Your task to perform on an android device: open app "Adobe Acrobat Reader: Edit PDF" (install if not already installed) Image 0: 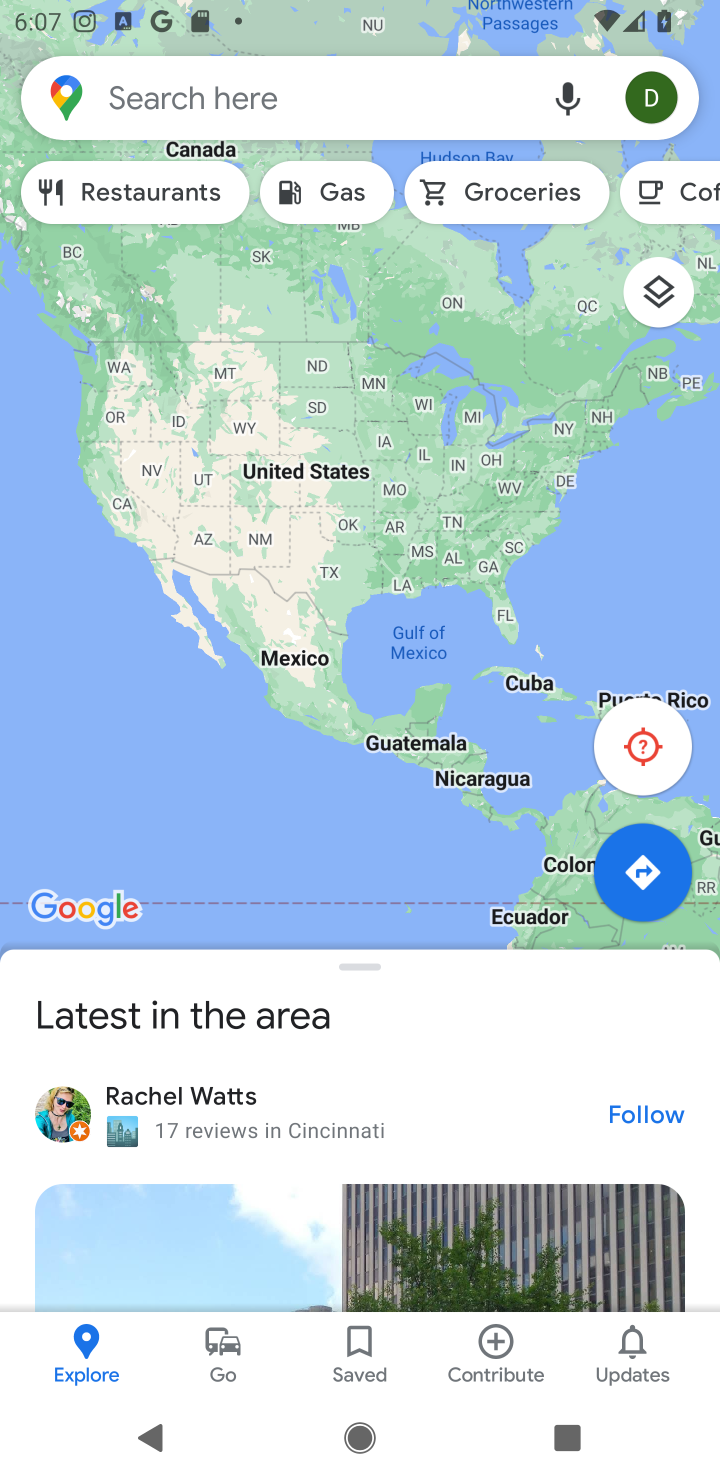
Step 0: press home button
Your task to perform on an android device: open app "Adobe Acrobat Reader: Edit PDF" (install if not already installed) Image 1: 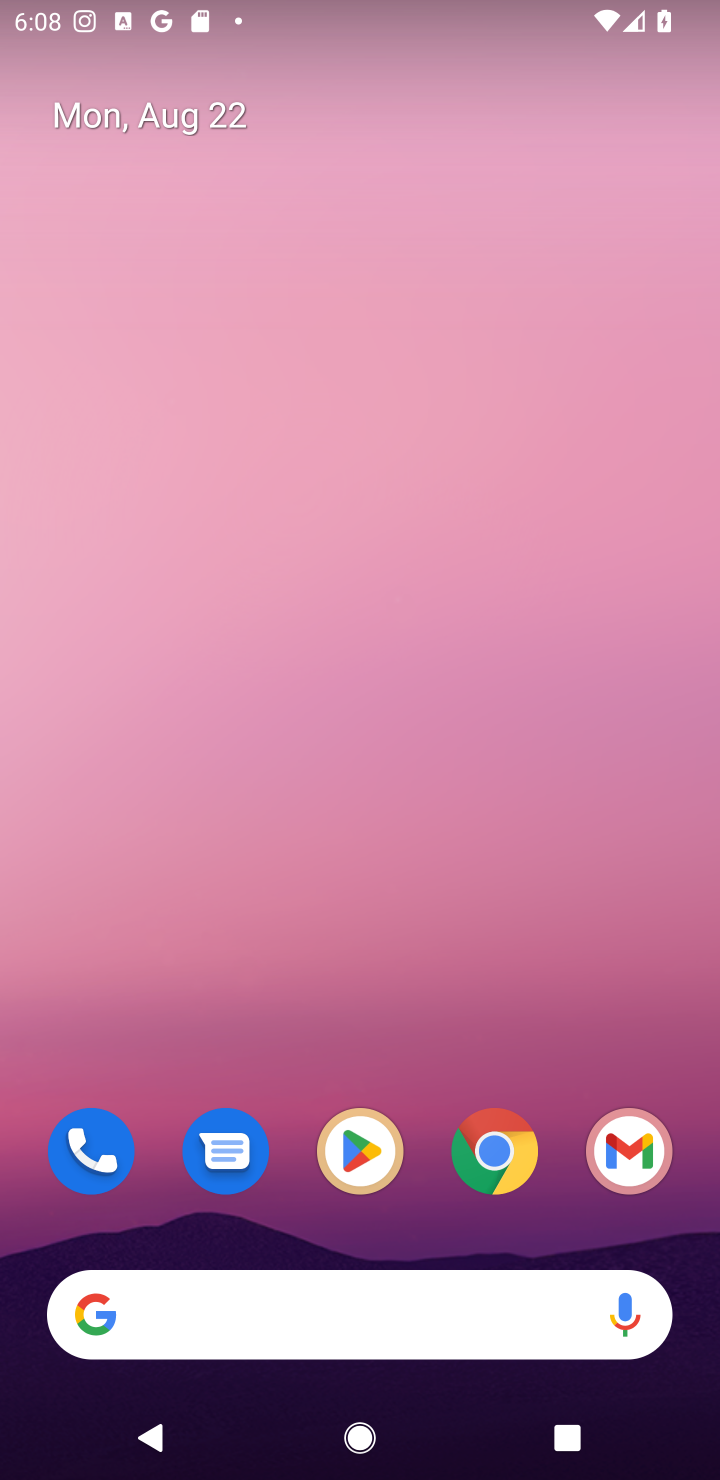
Step 1: click (365, 1143)
Your task to perform on an android device: open app "Adobe Acrobat Reader: Edit PDF" (install if not already installed) Image 2: 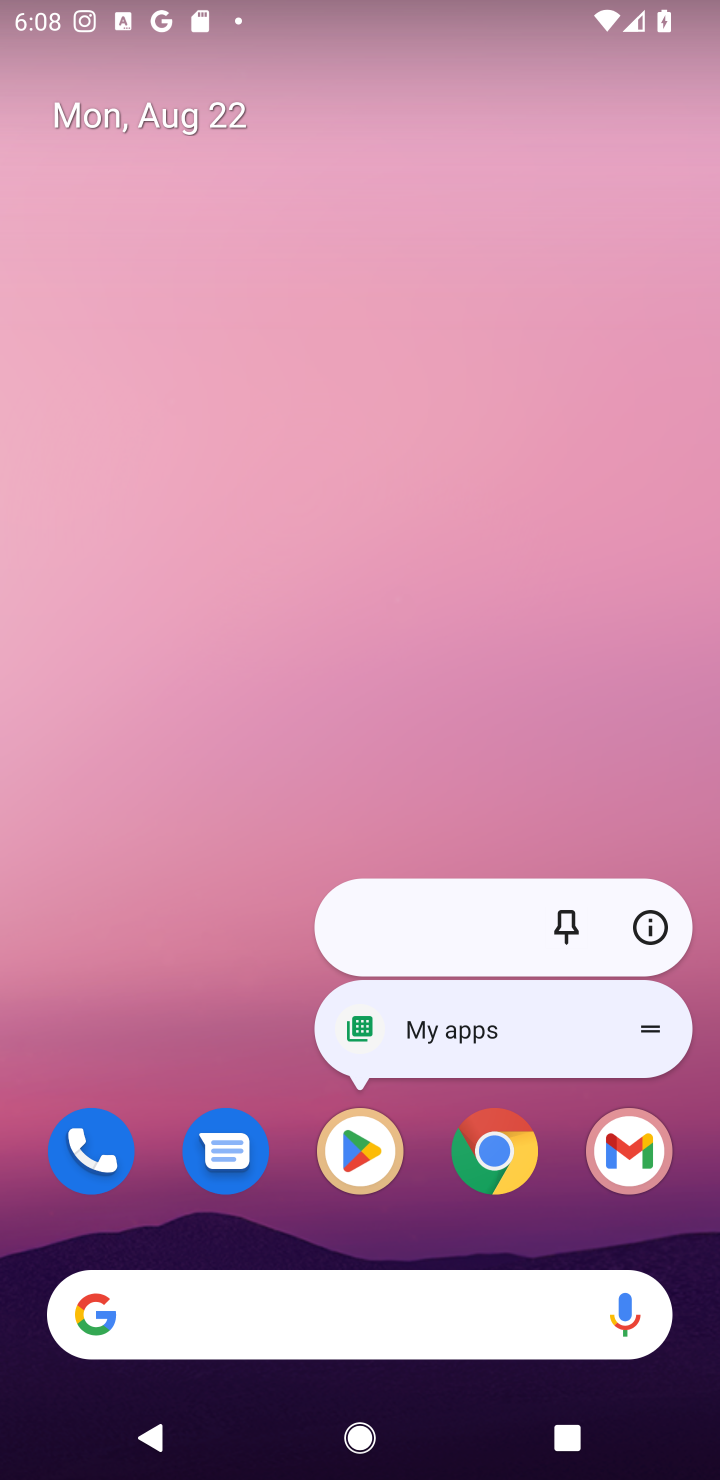
Step 2: click (365, 1149)
Your task to perform on an android device: open app "Adobe Acrobat Reader: Edit PDF" (install if not already installed) Image 3: 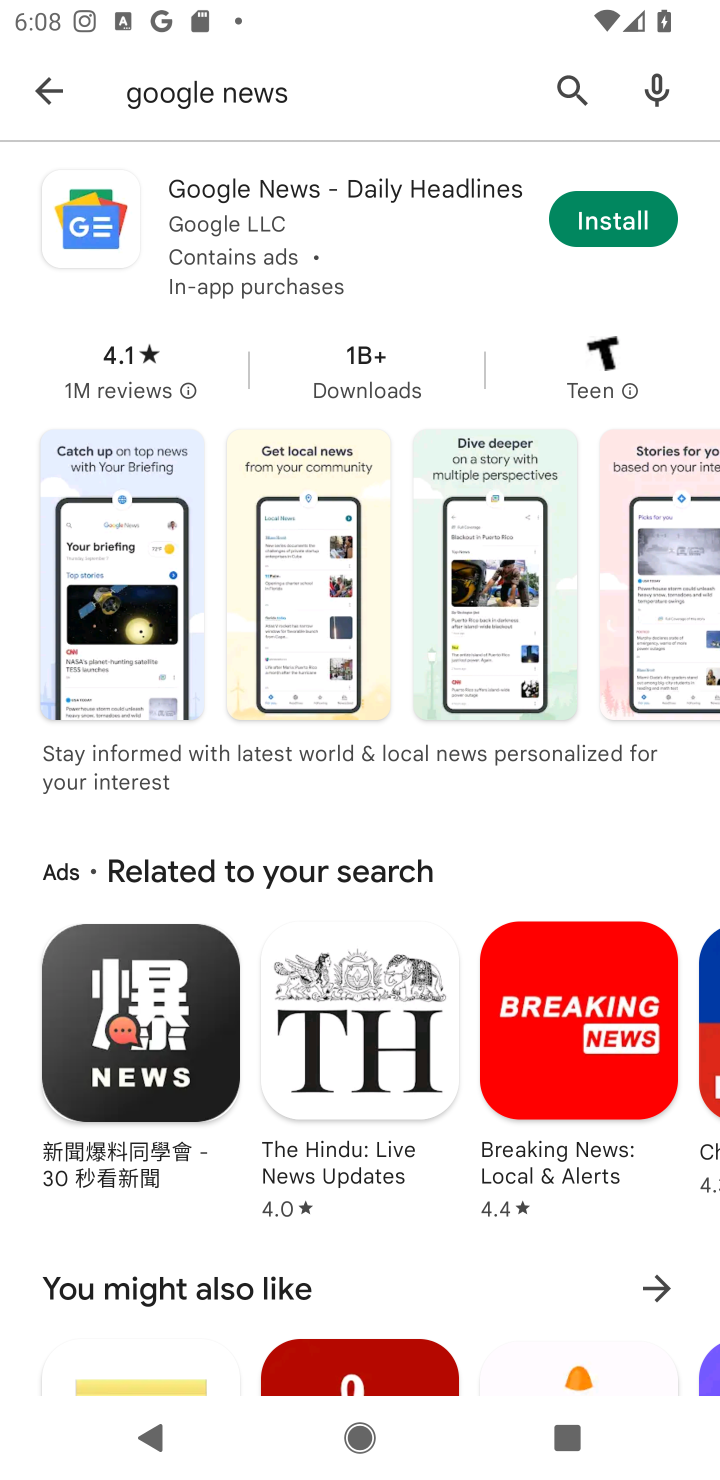
Step 3: click (560, 89)
Your task to perform on an android device: open app "Adobe Acrobat Reader: Edit PDF" (install if not already installed) Image 4: 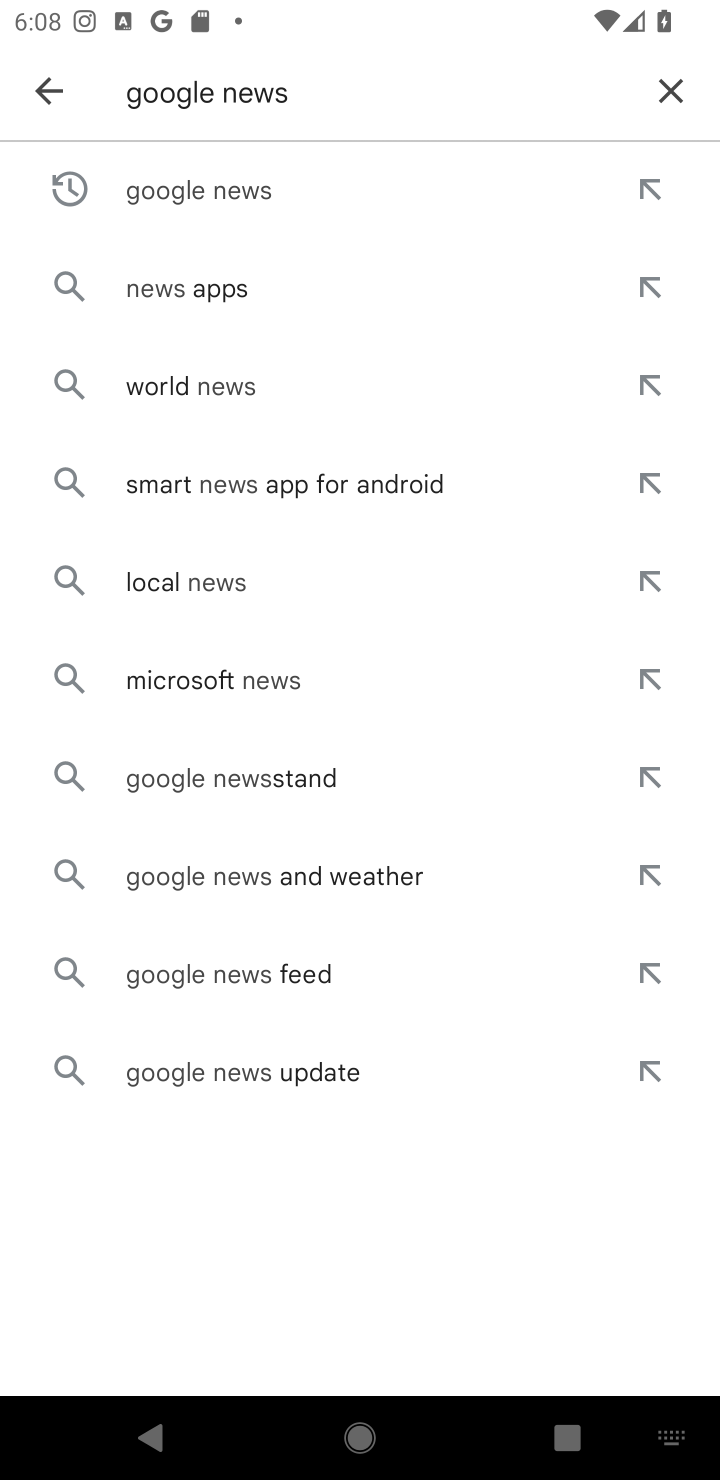
Step 4: click (668, 83)
Your task to perform on an android device: open app "Adobe Acrobat Reader: Edit PDF" (install if not already installed) Image 5: 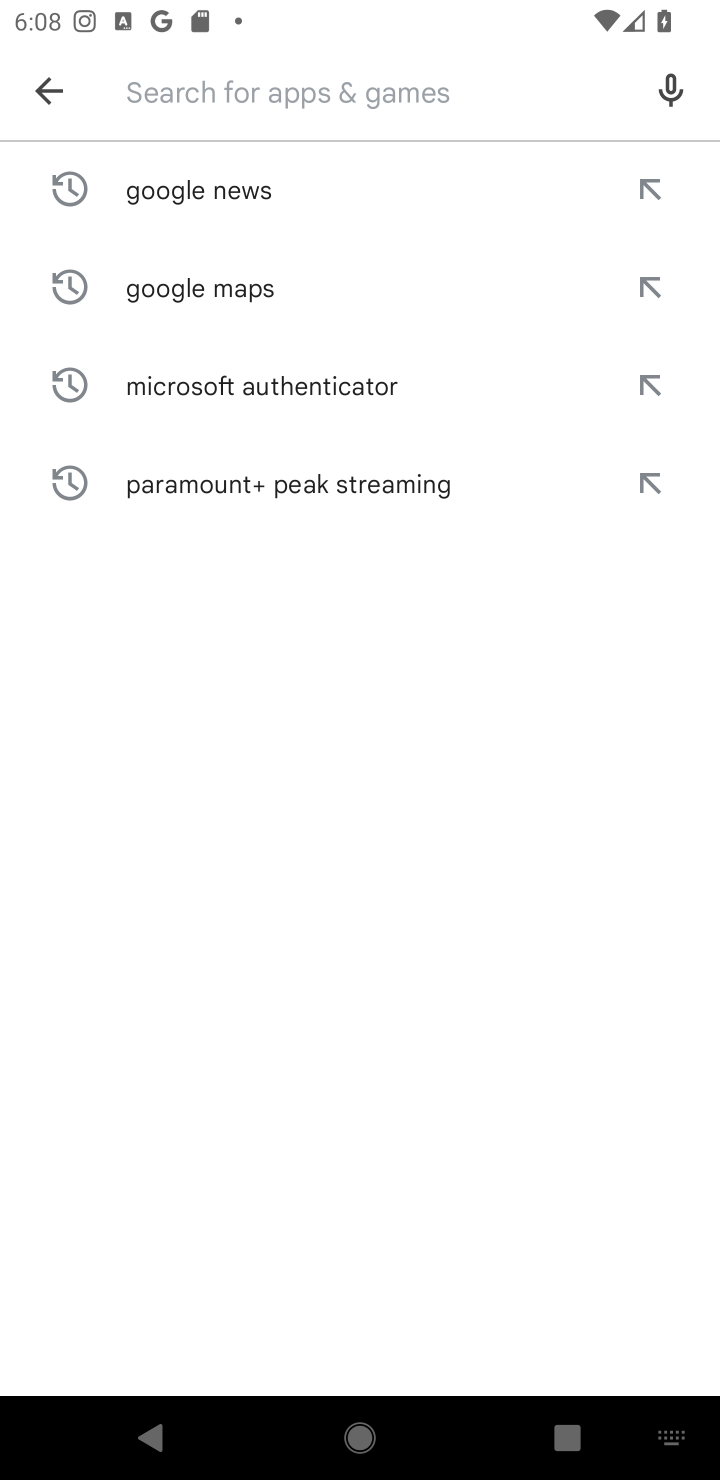
Step 5: type "Adobe Acrobat Reader: Edit PDF"
Your task to perform on an android device: open app "Adobe Acrobat Reader: Edit PDF" (install if not already installed) Image 6: 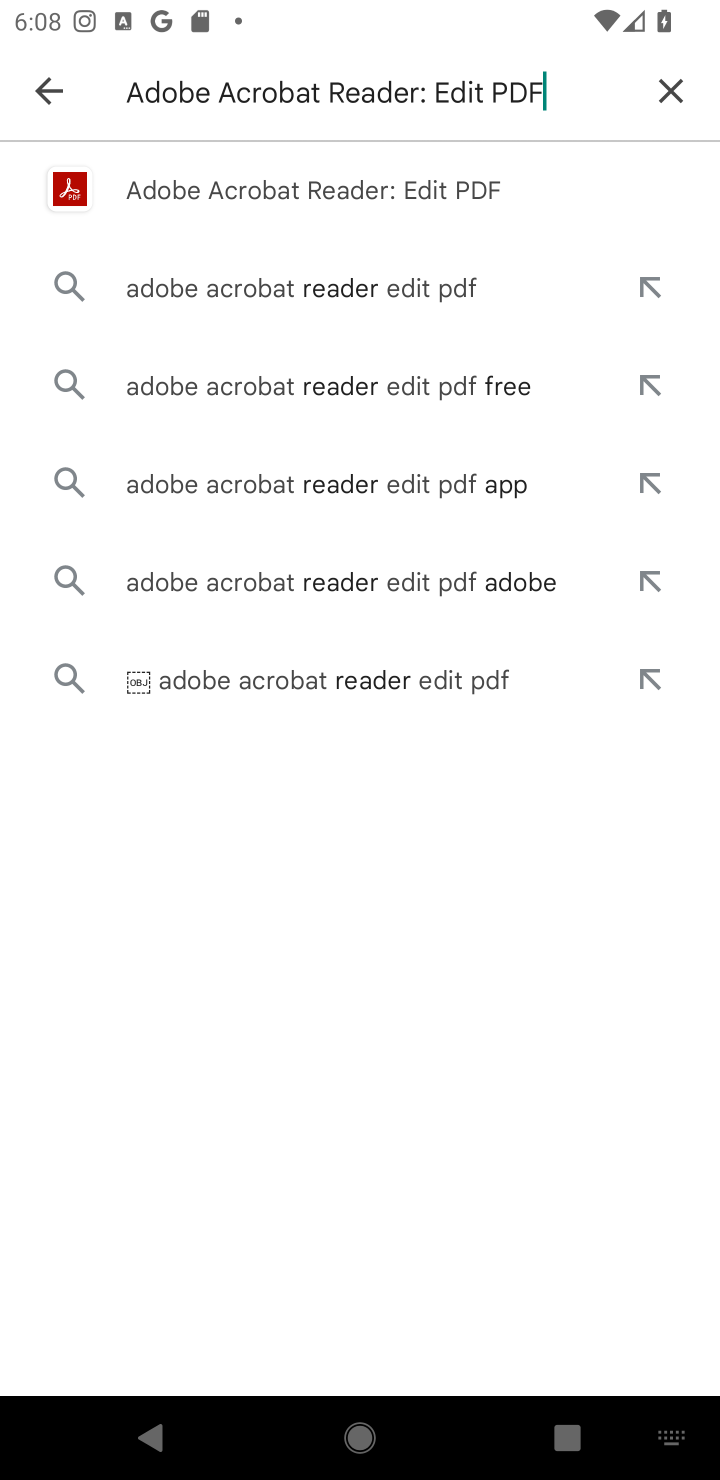
Step 6: click (326, 182)
Your task to perform on an android device: open app "Adobe Acrobat Reader: Edit PDF" (install if not already installed) Image 7: 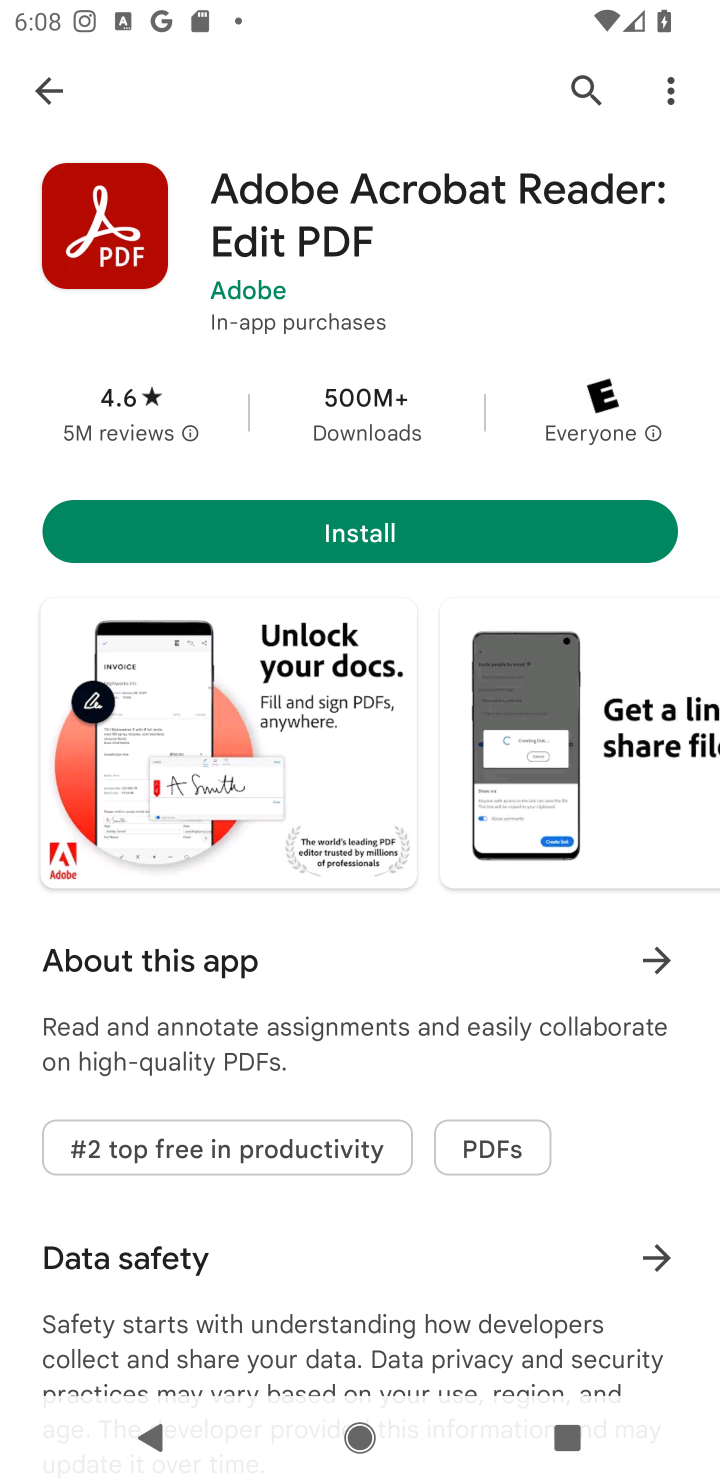
Step 7: click (359, 523)
Your task to perform on an android device: open app "Adobe Acrobat Reader: Edit PDF" (install if not already installed) Image 8: 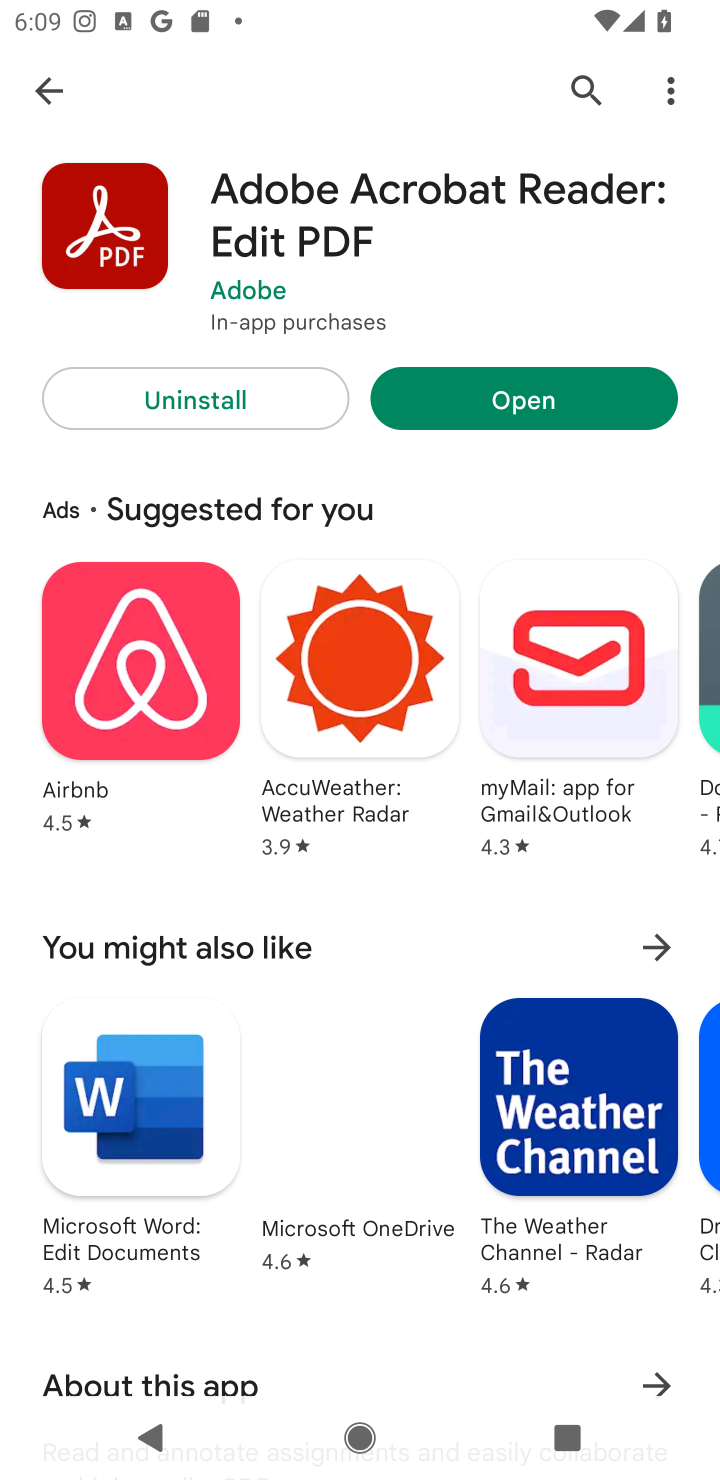
Step 8: click (545, 401)
Your task to perform on an android device: open app "Adobe Acrobat Reader: Edit PDF" (install if not already installed) Image 9: 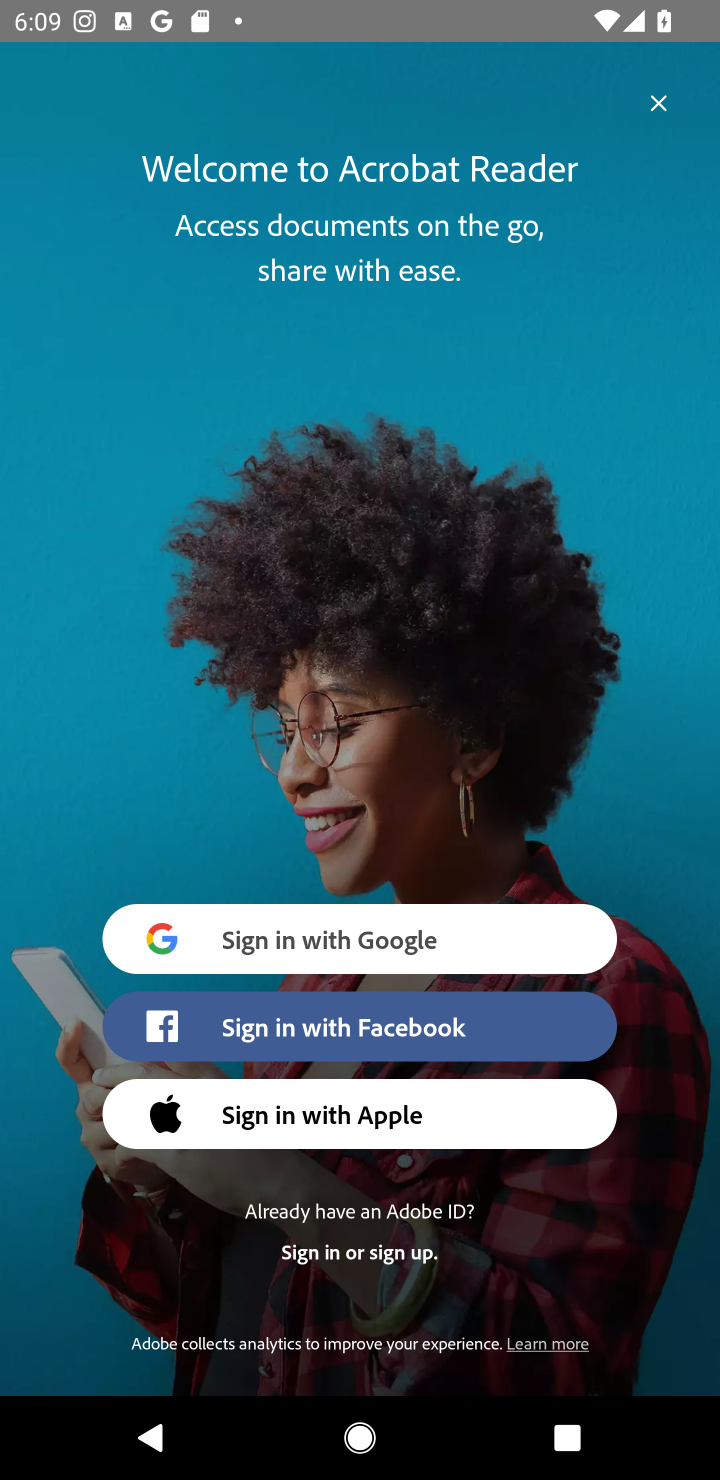
Step 9: task complete